Your task to perform on an android device: Go to Google maps Image 0: 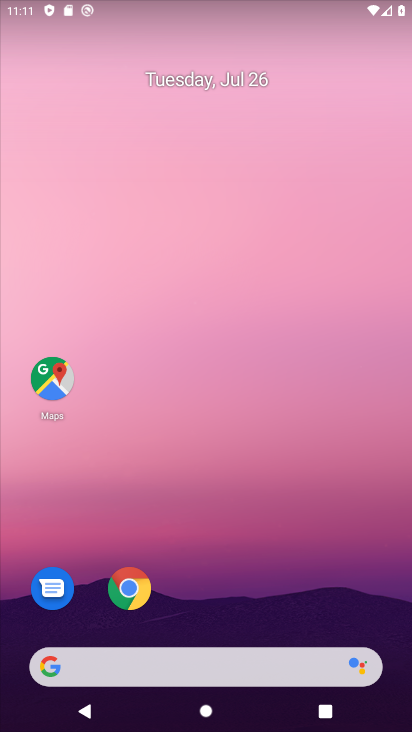
Step 0: click (38, 385)
Your task to perform on an android device: Go to Google maps Image 1: 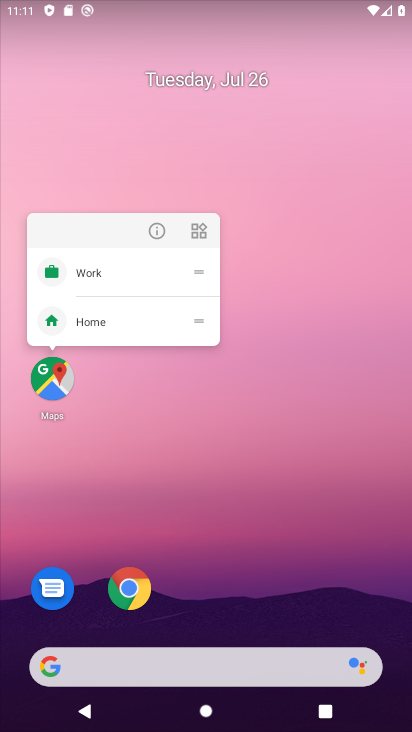
Step 1: click (41, 403)
Your task to perform on an android device: Go to Google maps Image 2: 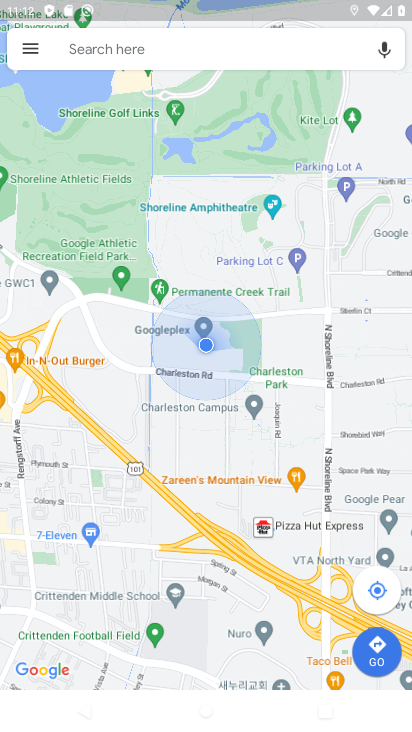
Step 2: task complete